Your task to perform on an android device: see tabs open on other devices in the chrome app Image 0: 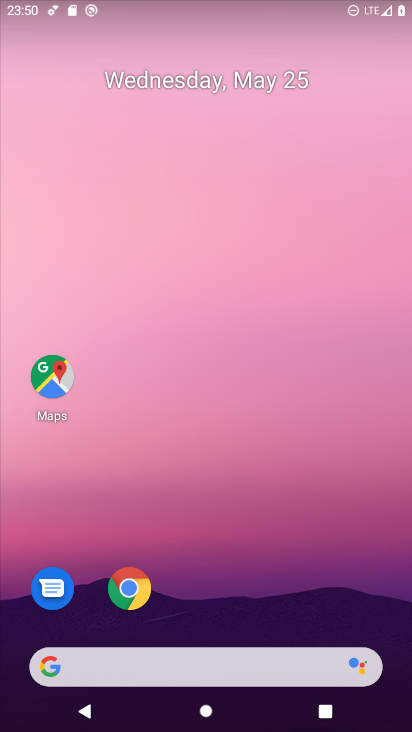
Step 0: click (129, 581)
Your task to perform on an android device: see tabs open on other devices in the chrome app Image 1: 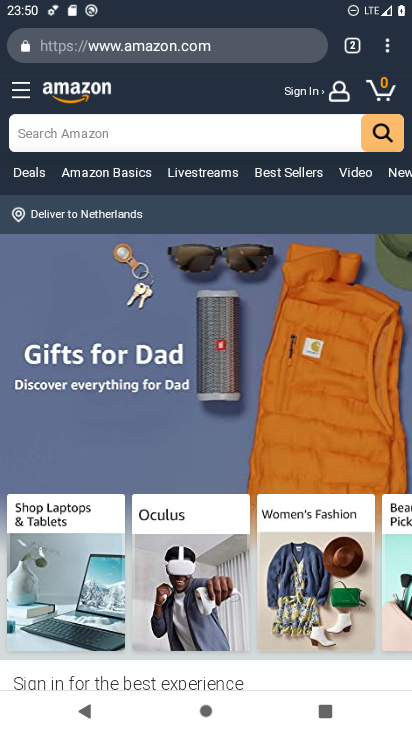
Step 1: click (384, 36)
Your task to perform on an android device: see tabs open on other devices in the chrome app Image 2: 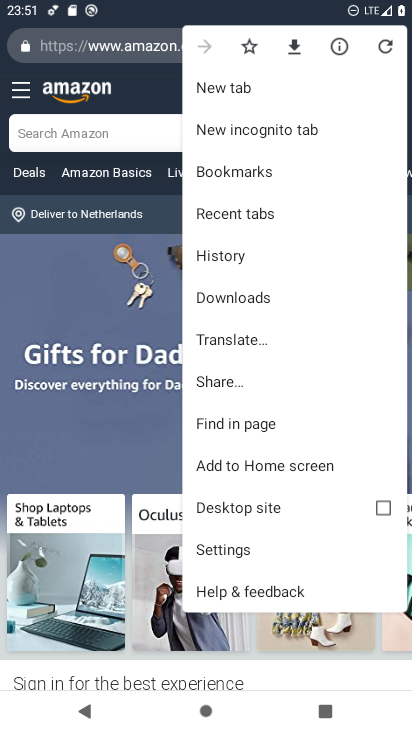
Step 2: click (250, 205)
Your task to perform on an android device: see tabs open on other devices in the chrome app Image 3: 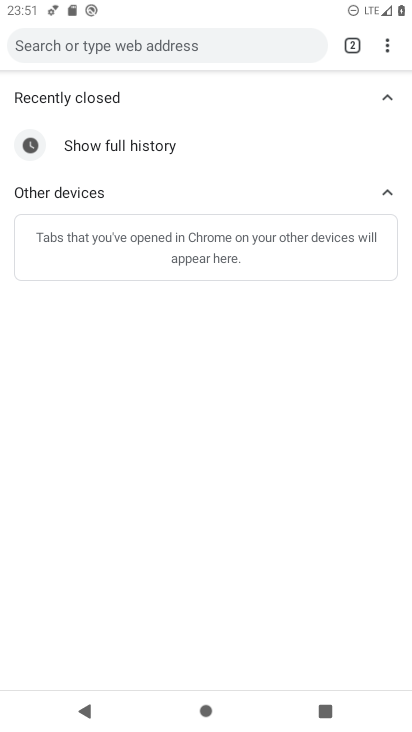
Step 3: task complete